Your task to perform on an android device: Show me recent news Image 0: 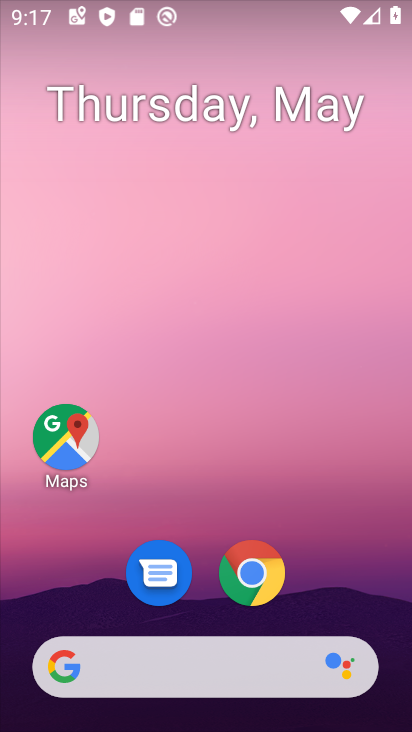
Step 0: drag from (316, 519) to (323, 296)
Your task to perform on an android device: Show me recent news Image 1: 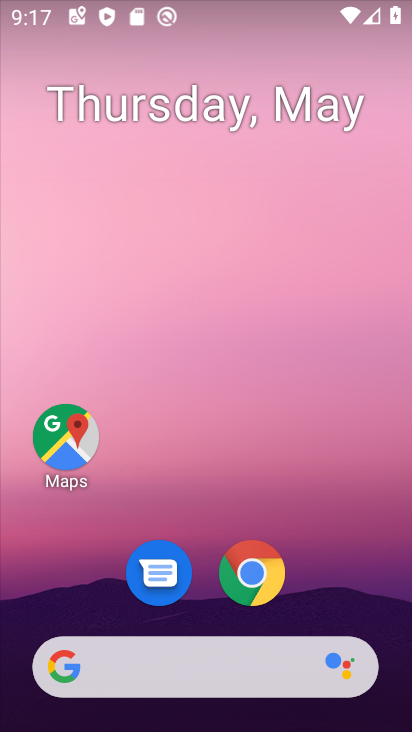
Step 1: click (168, 673)
Your task to perform on an android device: Show me recent news Image 2: 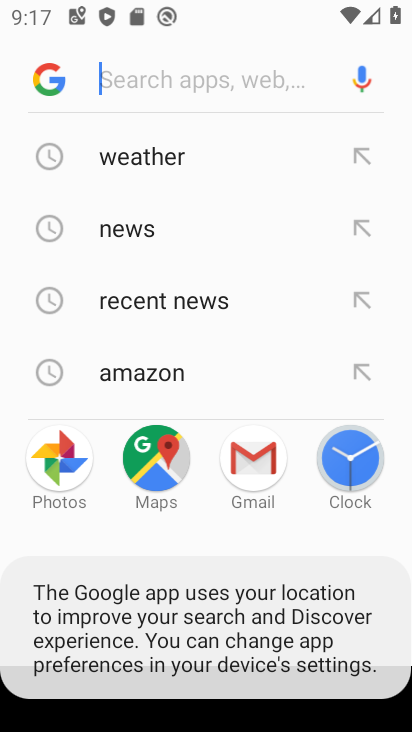
Step 2: click (215, 306)
Your task to perform on an android device: Show me recent news Image 3: 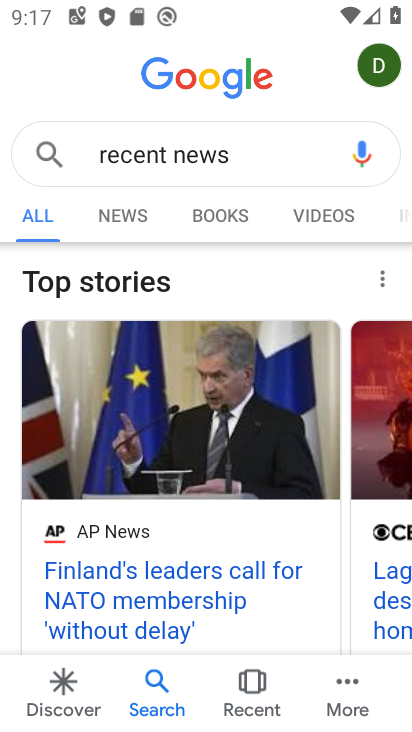
Step 3: drag from (195, 590) to (184, 257)
Your task to perform on an android device: Show me recent news Image 4: 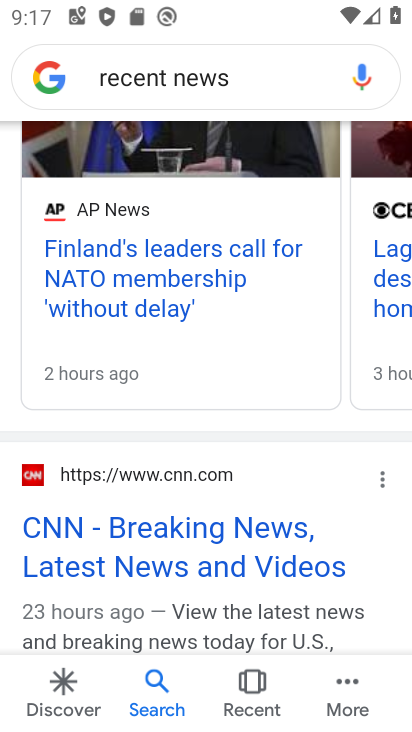
Step 4: click (172, 486)
Your task to perform on an android device: Show me recent news Image 5: 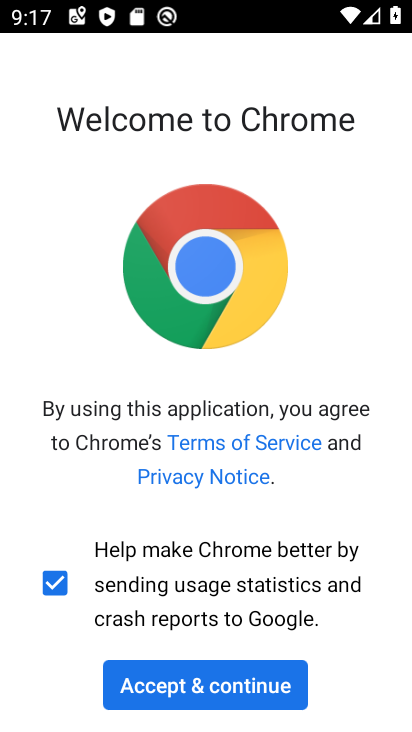
Step 5: click (202, 688)
Your task to perform on an android device: Show me recent news Image 6: 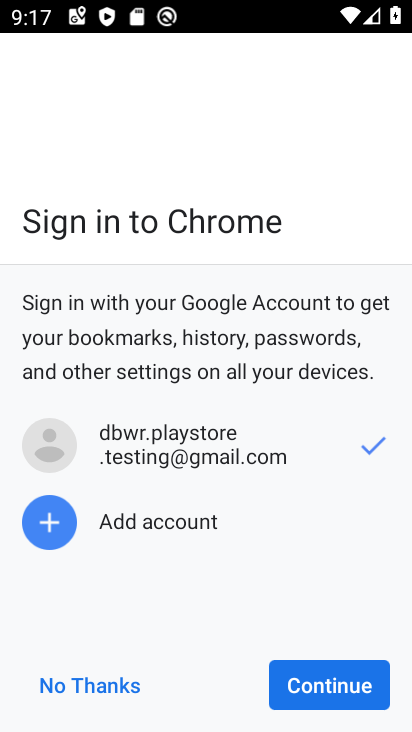
Step 6: click (332, 693)
Your task to perform on an android device: Show me recent news Image 7: 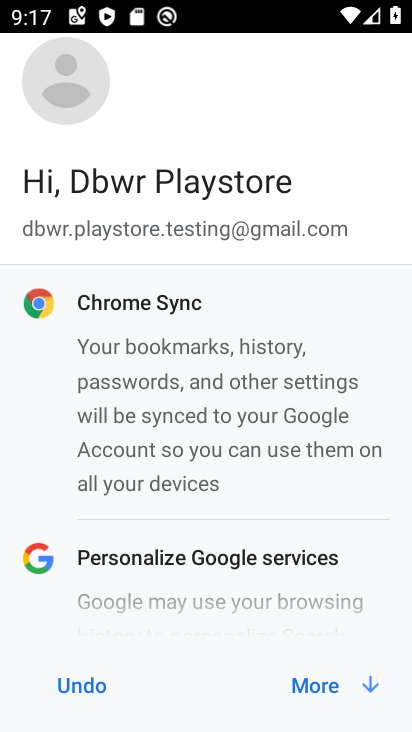
Step 7: click (332, 693)
Your task to perform on an android device: Show me recent news Image 8: 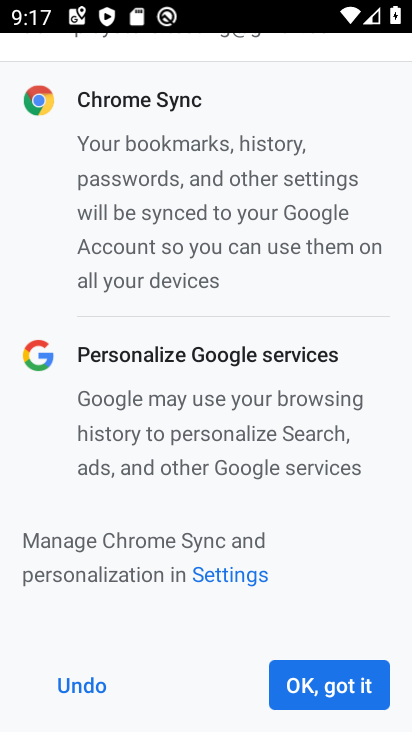
Step 8: click (332, 693)
Your task to perform on an android device: Show me recent news Image 9: 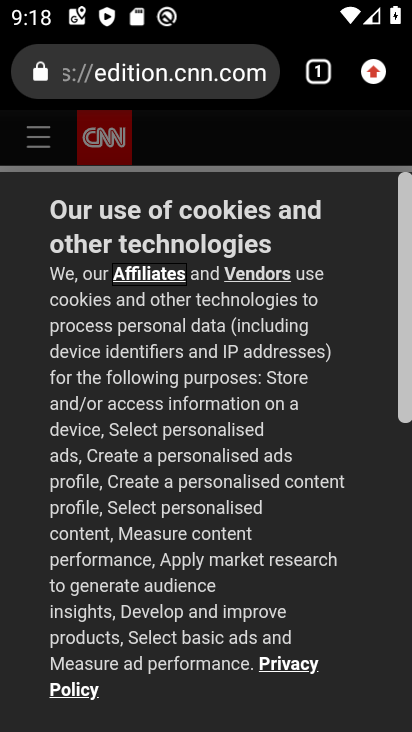
Step 9: task complete